Your task to perform on an android device: Go to Maps Image 0: 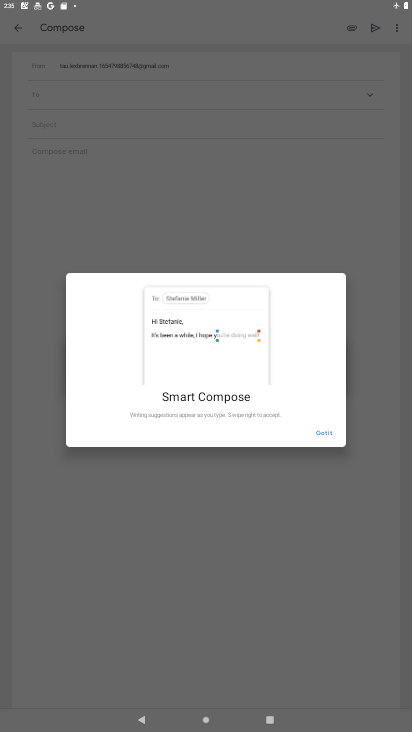
Step 0: press home button
Your task to perform on an android device: Go to Maps Image 1: 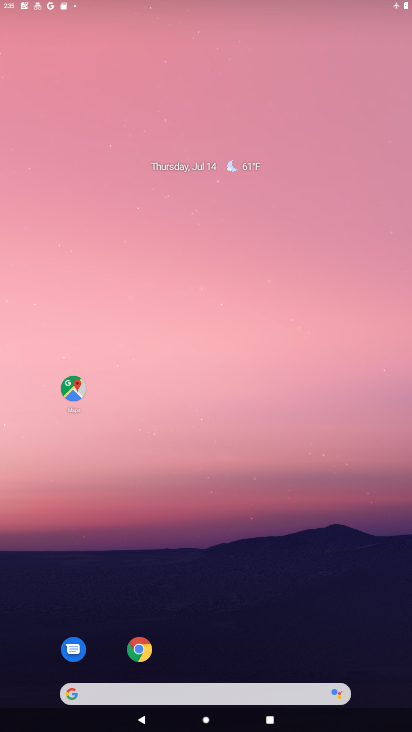
Step 1: drag from (329, 672) to (400, 78)
Your task to perform on an android device: Go to Maps Image 2: 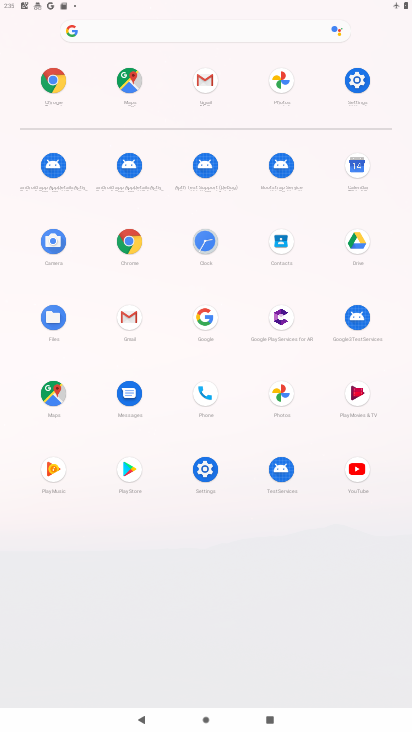
Step 2: click (56, 389)
Your task to perform on an android device: Go to Maps Image 3: 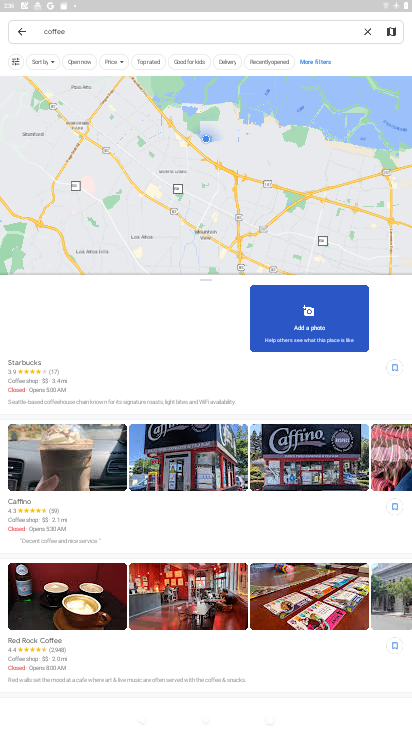
Step 3: task complete